Your task to perform on an android device: Open Chrome and go to settings Image 0: 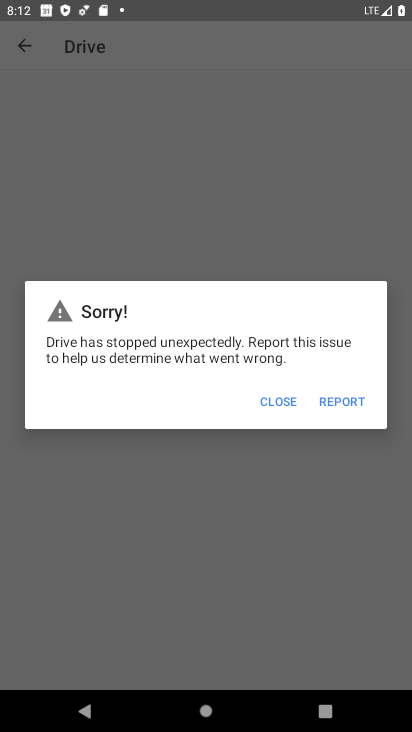
Step 0: press home button
Your task to perform on an android device: Open Chrome and go to settings Image 1: 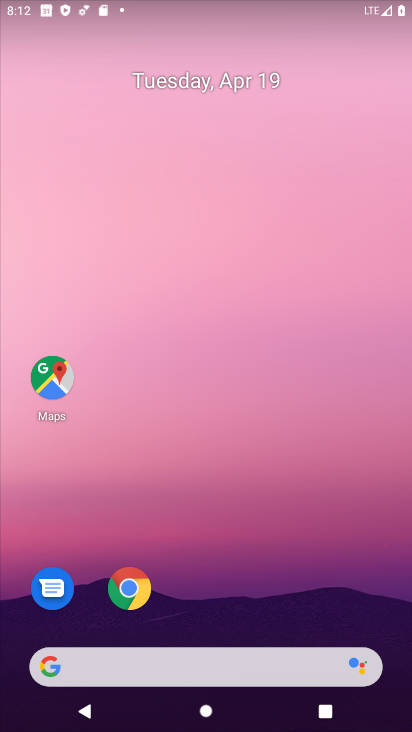
Step 1: click (127, 590)
Your task to perform on an android device: Open Chrome and go to settings Image 2: 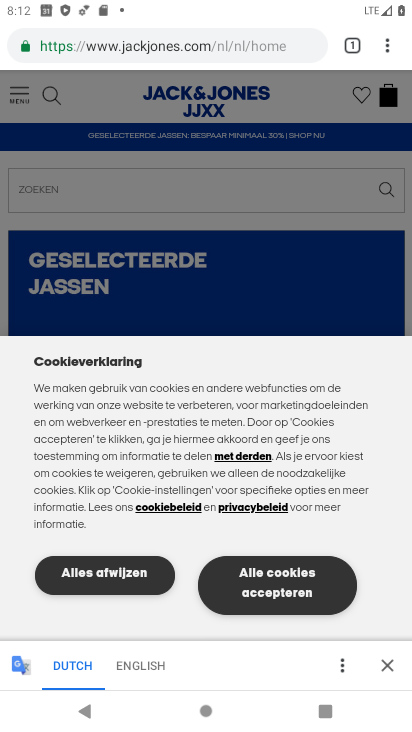
Step 2: click (388, 42)
Your task to perform on an android device: Open Chrome and go to settings Image 3: 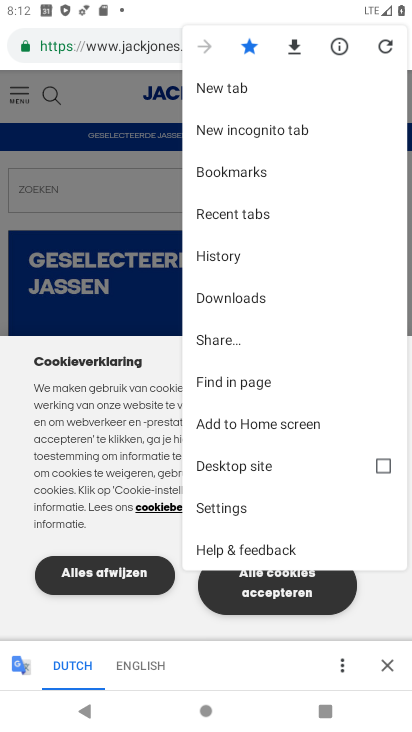
Step 3: click (213, 508)
Your task to perform on an android device: Open Chrome and go to settings Image 4: 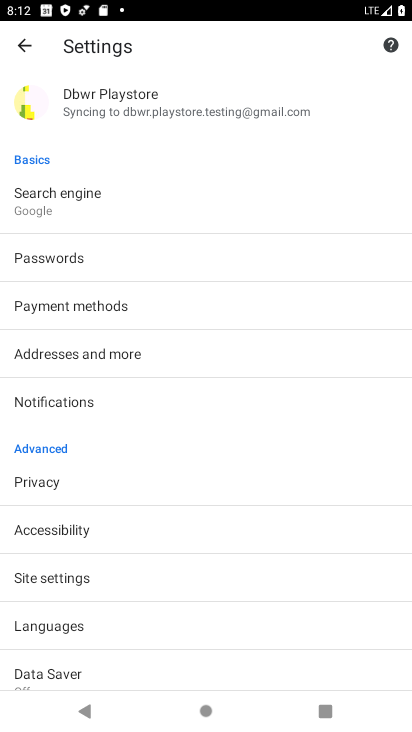
Step 4: task complete